Your task to perform on an android device: read, delete, or share a saved page in the chrome app Image 0: 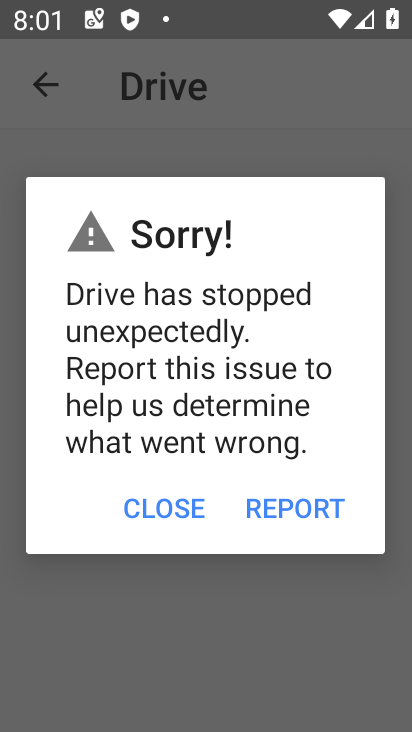
Step 0: press home button
Your task to perform on an android device: read, delete, or share a saved page in the chrome app Image 1: 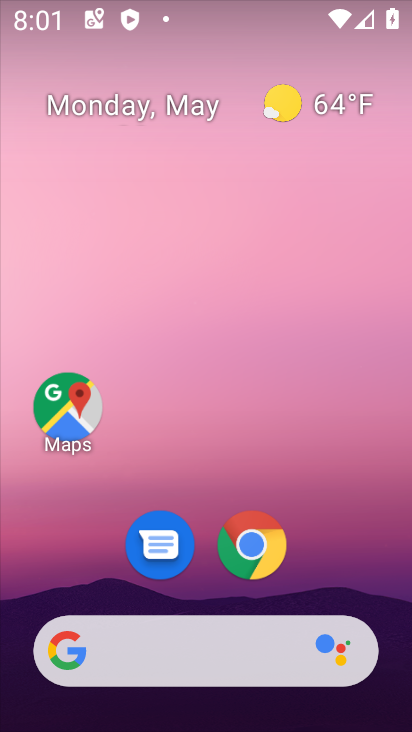
Step 1: click (256, 547)
Your task to perform on an android device: read, delete, or share a saved page in the chrome app Image 2: 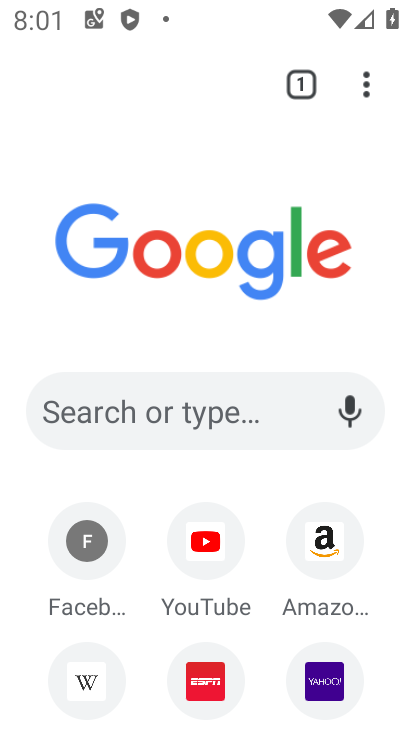
Step 2: click (369, 92)
Your task to perform on an android device: read, delete, or share a saved page in the chrome app Image 3: 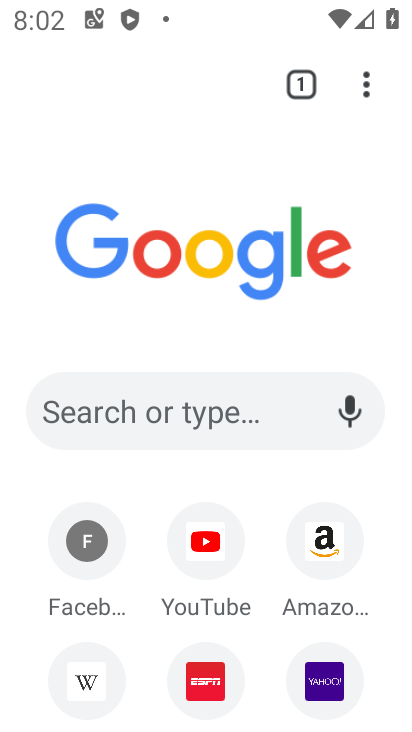
Step 3: drag from (369, 92) to (154, 552)
Your task to perform on an android device: read, delete, or share a saved page in the chrome app Image 4: 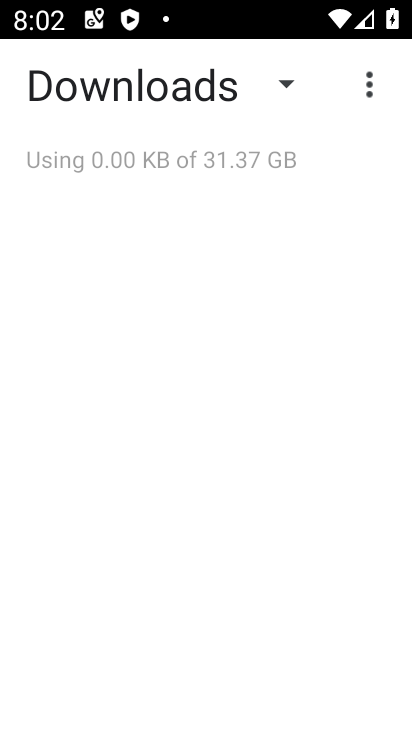
Step 4: click (289, 91)
Your task to perform on an android device: read, delete, or share a saved page in the chrome app Image 5: 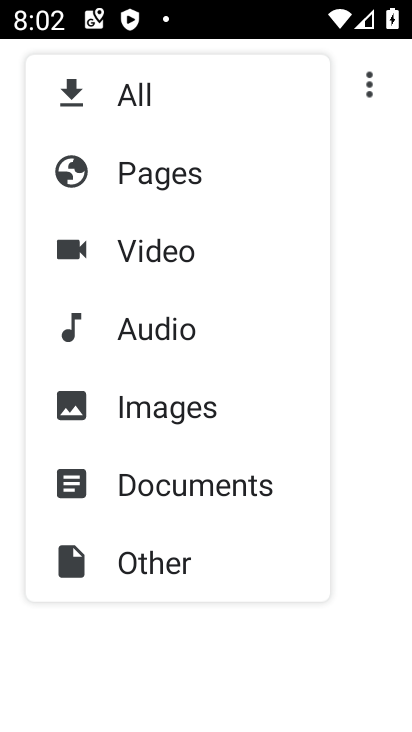
Step 5: click (171, 166)
Your task to perform on an android device: read, delete, or share a saved page in the chrome app Image 6: 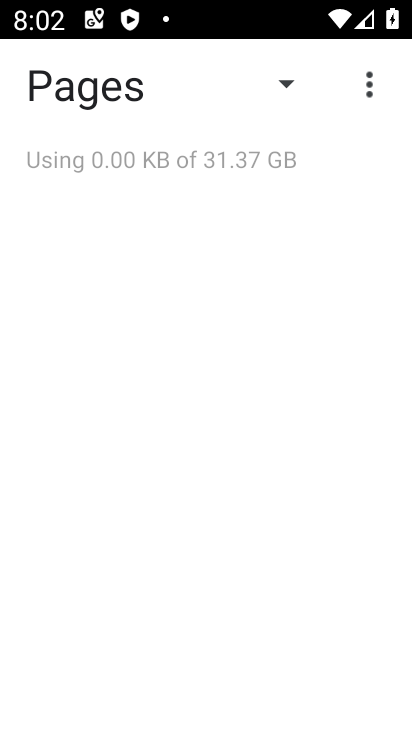
Step 6: task complete